Your task to perform on an android device: turn off data saver in the chrome app Image 0: 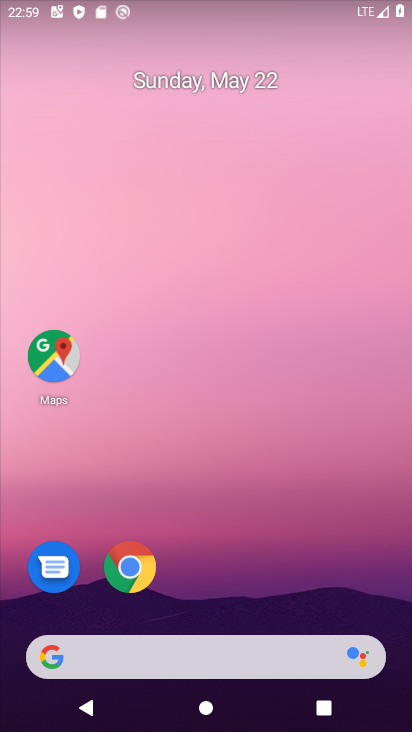
Step 0: drag from (237, 284) to (199, 7)
Your task to perform on an android device: turn off data saver in the chrome app Image 1: 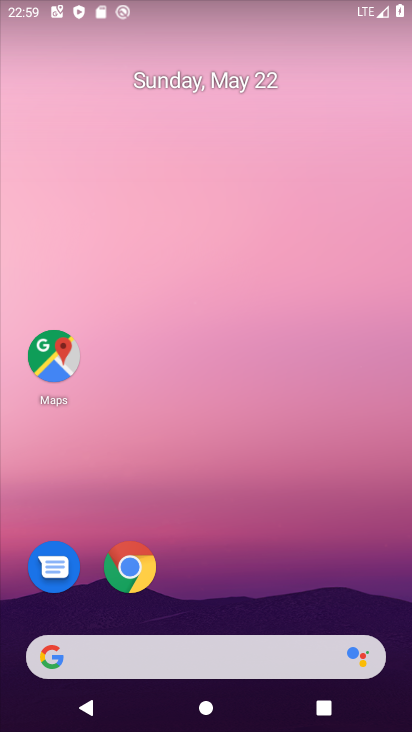
Step 1: drag from (271, 541) to (231, 4)
Your task to perform on an android device: turn off data saver in the chrome app Image 2: 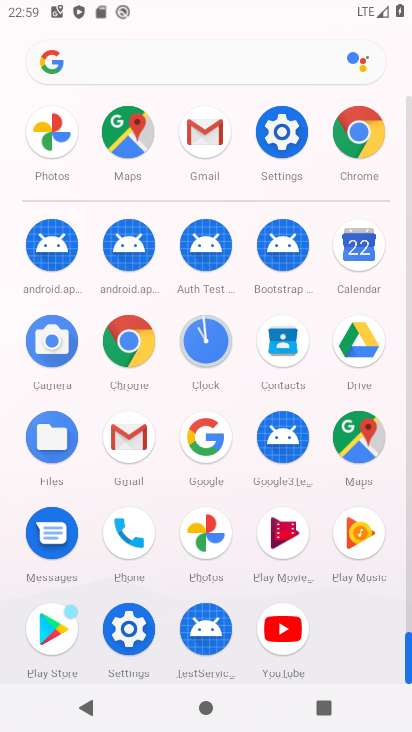
Step 2: drag from (39, 528) to (40, 568)
Your task to perform on an android device: turn off data saver in the chrome app Image 3: 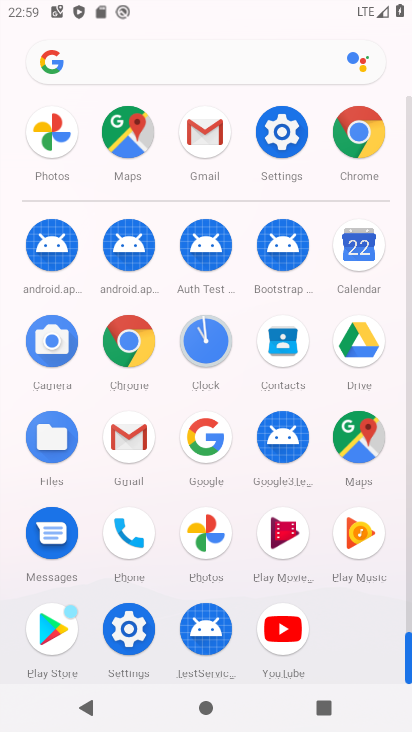
Step 3: drag from (30, 572) to (30, 234)
Your task to perform on an android device: turn off data saver in the chrome app Image 4: 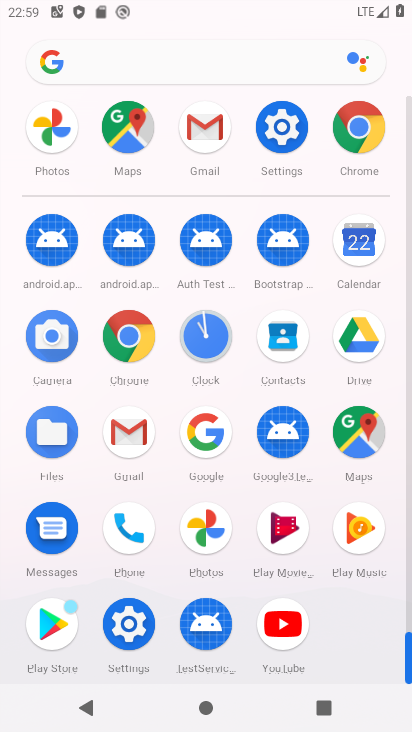
Step 4: click (124, 337)
Your task to perform on an android device: turn off data saver in the chrome app Image 5: 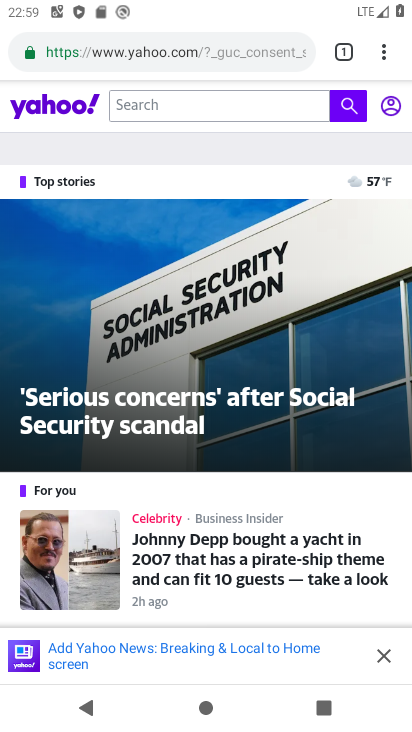
Step 5: drag from (385, 43) to (209, 623)
Your task to perform on an android device: turn off data saver in the chrome app Image 6: 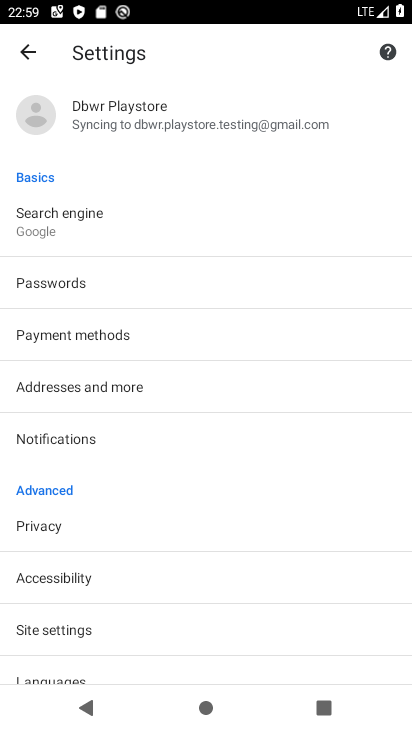
Step 6: drag from (219, 499) to (217, 132)
Your task to perform on an android device: turn off data saver in the chrome app Image 7: 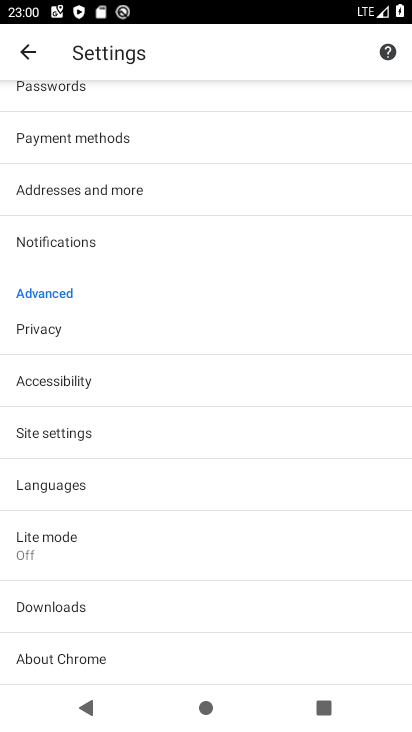
Step 7: click (85, 532)
Your task to perform on an android device: turn off data saver in the chrome app Image 8: 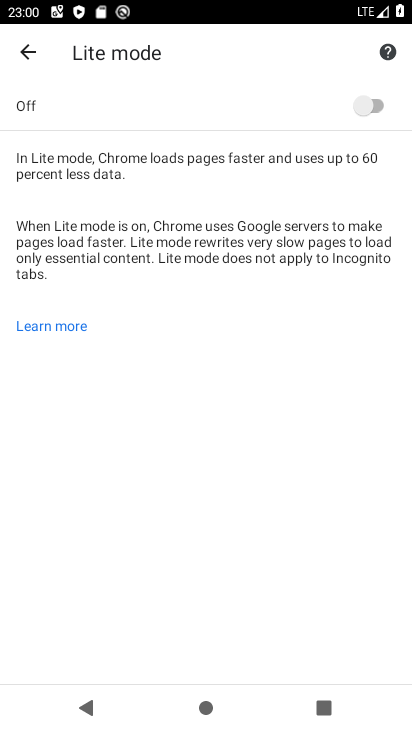
Step 8: task complete